Your task to perform on an android device: Open Google Chrome Image 0: 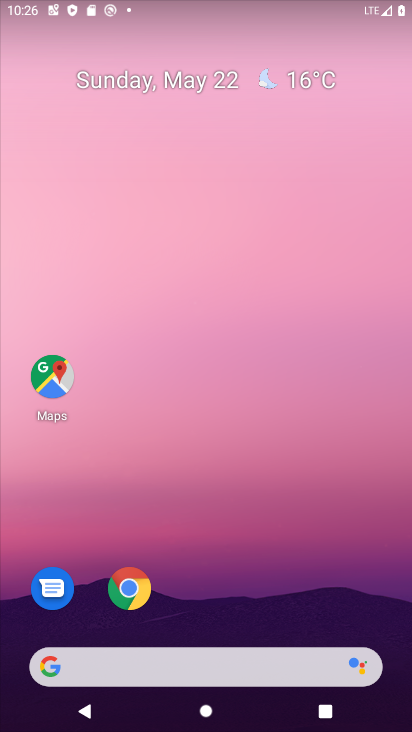
Step 0: click (144, 586)
Your task to perform on an android device: Open Google Chrome Image 1: 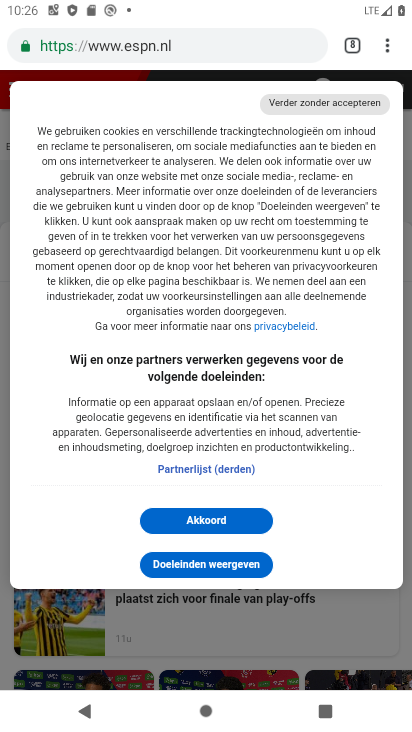
Step 1: task complete